Your task to perform on an android device: remove spam from my inbox in the gmail app Image 0: 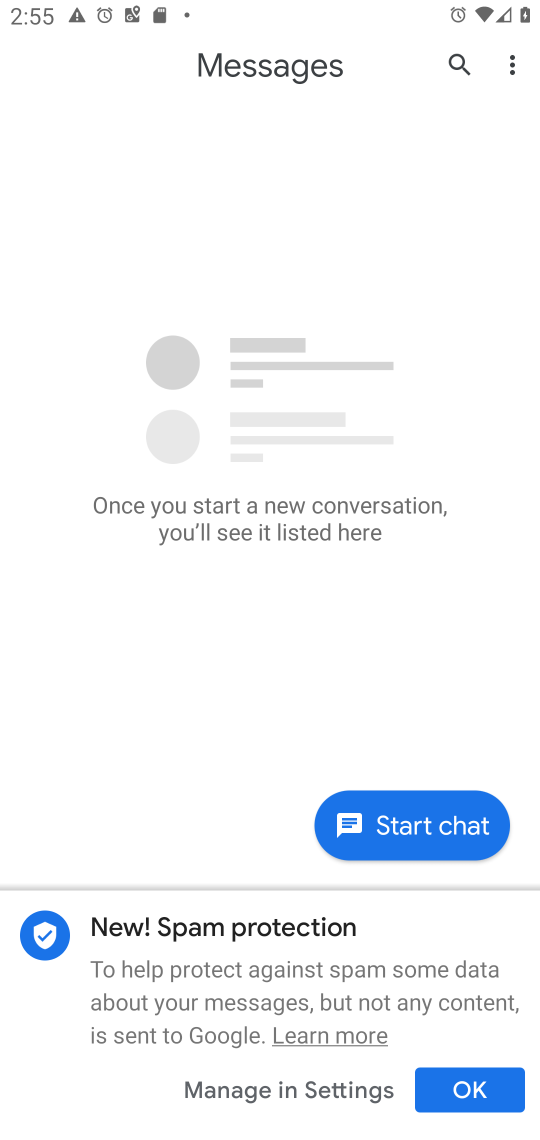
Step 0: press home button
Your task to perform on an android device: remove spam from my inbox in the gmail app Image 1: 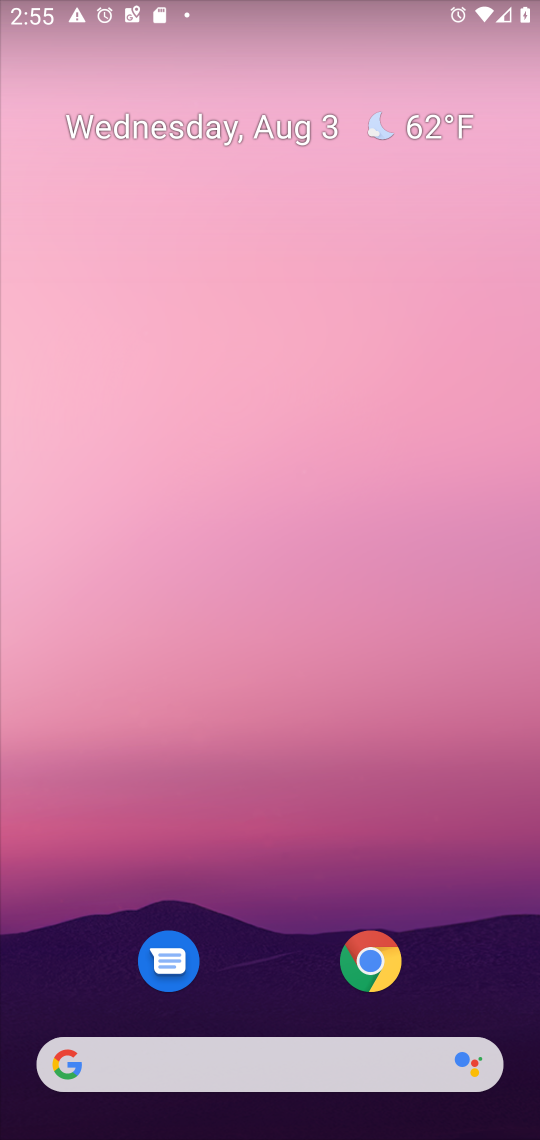
Step 1: drag from (267, 919) to (262, 30)
Your task to perform on an android device: remove spam from my inbox in the gmail app Image 2: 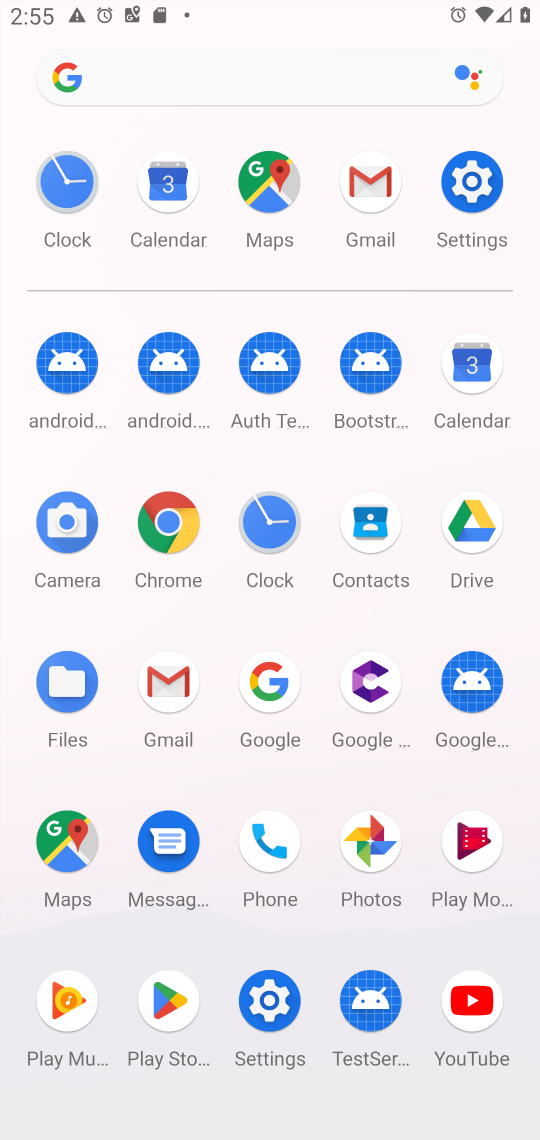
Step 2: click (364, 185)
Your task to perform on an android device: remove spam from my inbox in the gmail app Image 3: 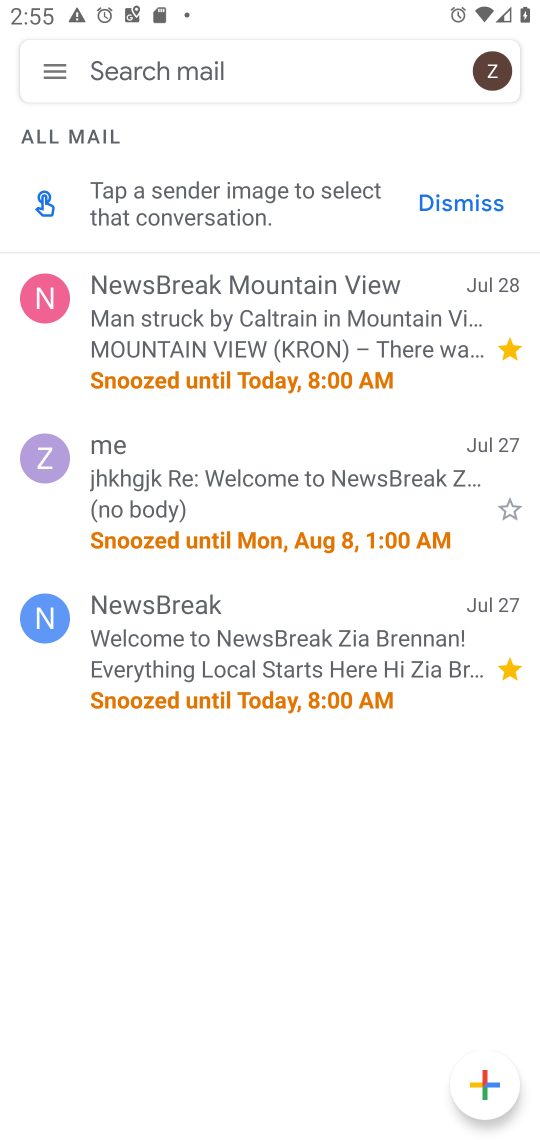
Step 3: click (58, 80)
Your task to perform on an android device: remove spam from my inbox in the gmail app Image 4: 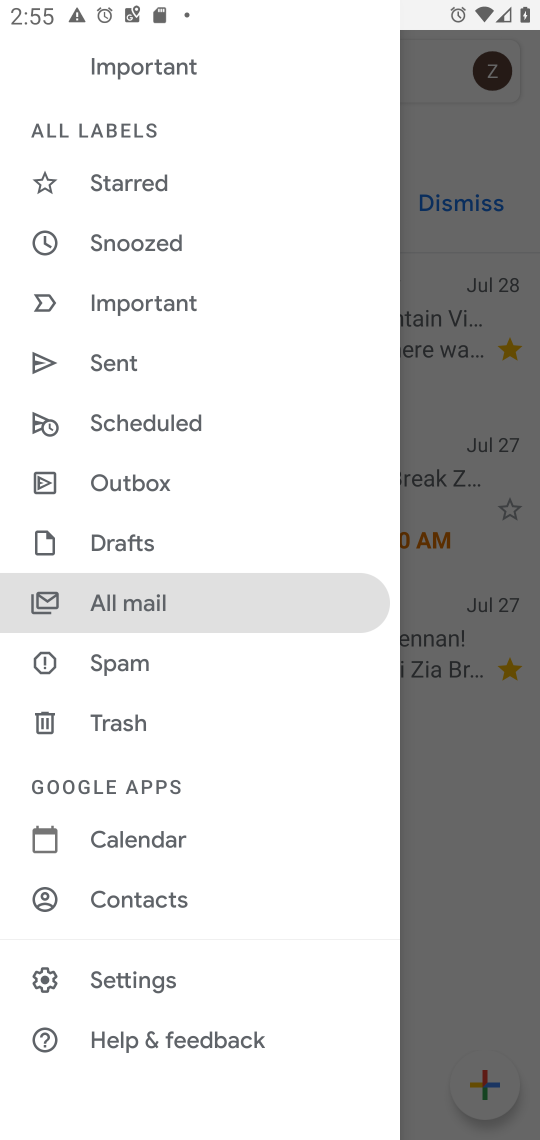
Step 4: click (97, 661)
Your task to perform on an android device: remove spam from my inbox in the gmail app Image 5: 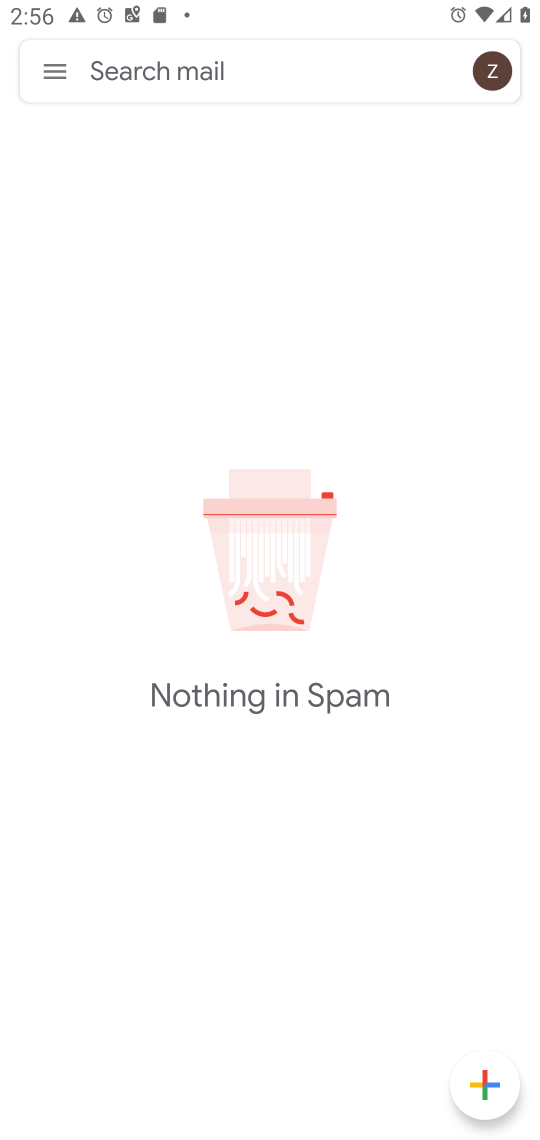
Step 5: task complete